Your task to perform on an android device: Open location settings Image 0: 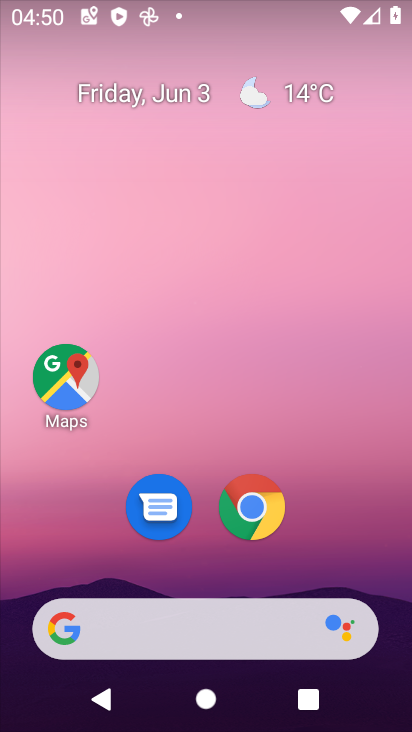
Step 0: drag from (356, 559) to (290, 94)
Your task to perform on an android device: Open location settings Image 1: 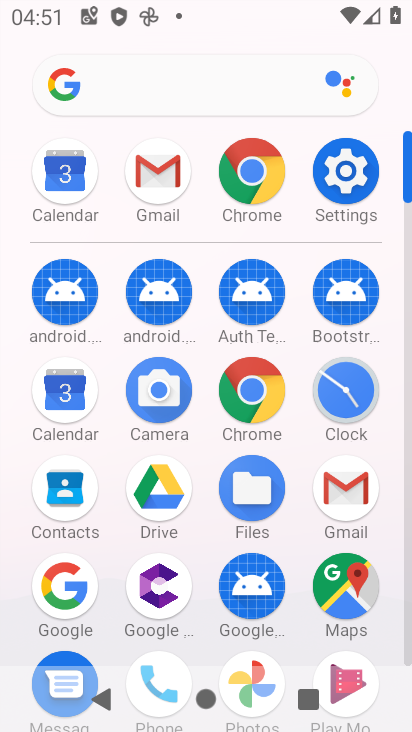
Step 1: click (334, 189)
Your task to perform on an android device: Open location settings Image 2: 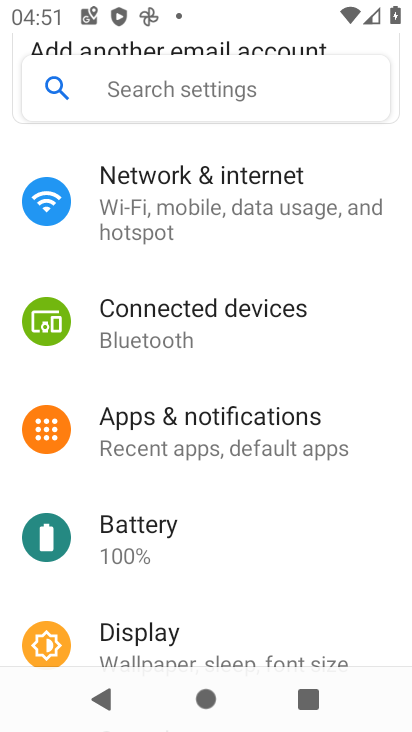
Step 2: drag from (333, 610) to (272, 3)
Your task to perform on an android device: Open location settings Image 3: 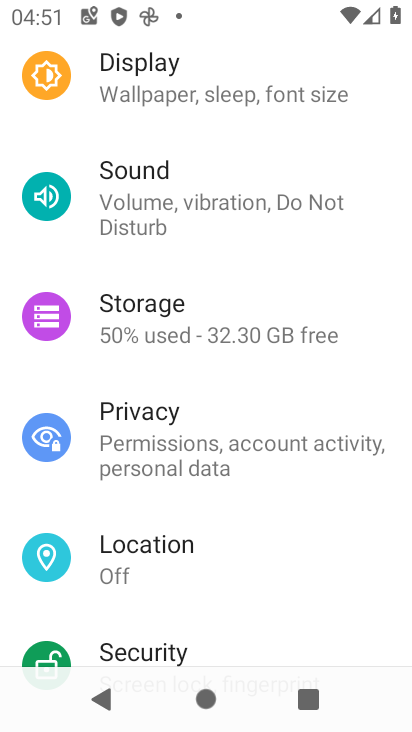
Step 3: click (232, 566)
Your task to perform on an android device: Open location settings Image 4: 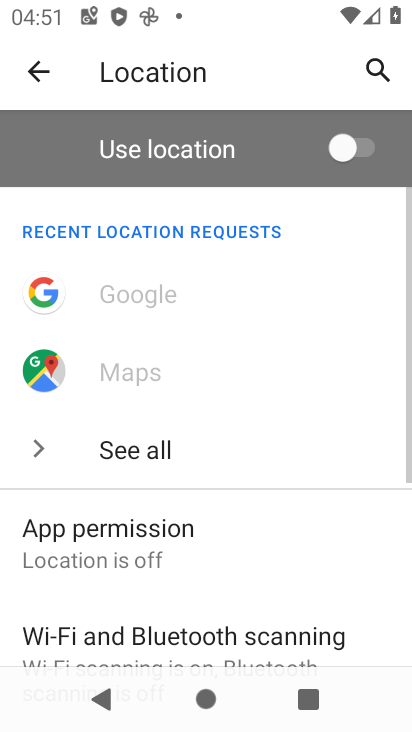
Step 4: task complete